Your task to perform on an android device: turn on notifications settings in the gmail app Image 0: 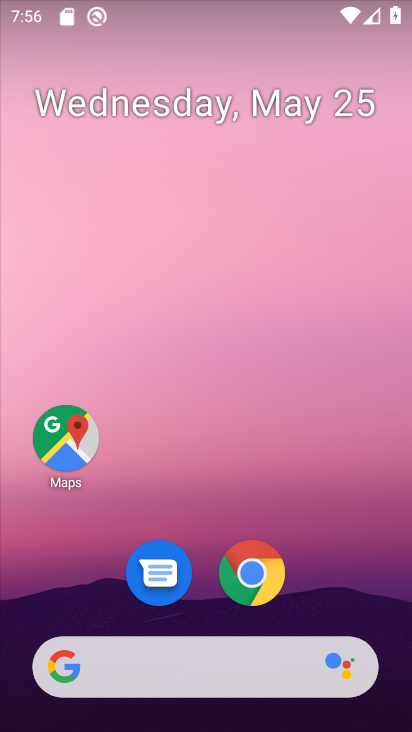
Step 0: drag from (398, 695) to (334, 194)
Your task to perform on an android device: turn on notifications settings in the gmail app Image 1: 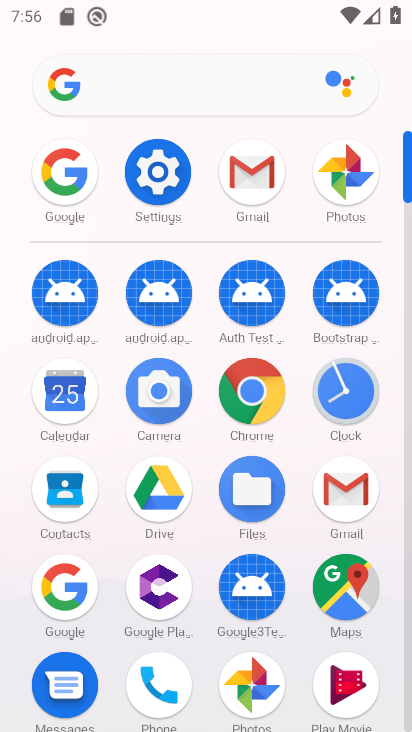
Step 1: click (261, 186)
Your task to perform on an android device: turn on notifications settings in the gmail app Image 2: 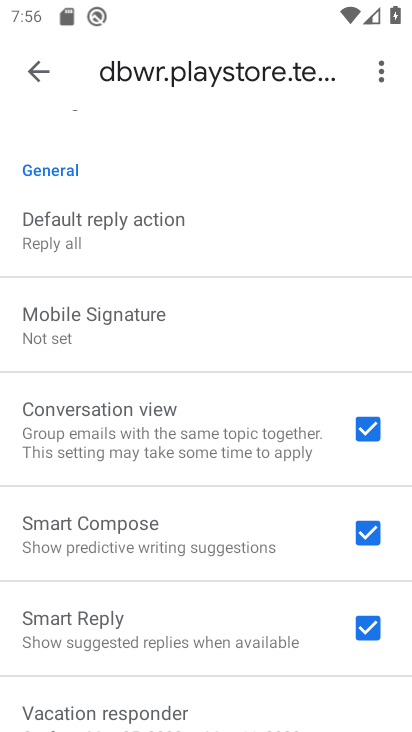
Step 2: drag from (182, 664) to (199, 395)
Your task to perform on an android device: turn on notifications settings in the gmail app Image 3: 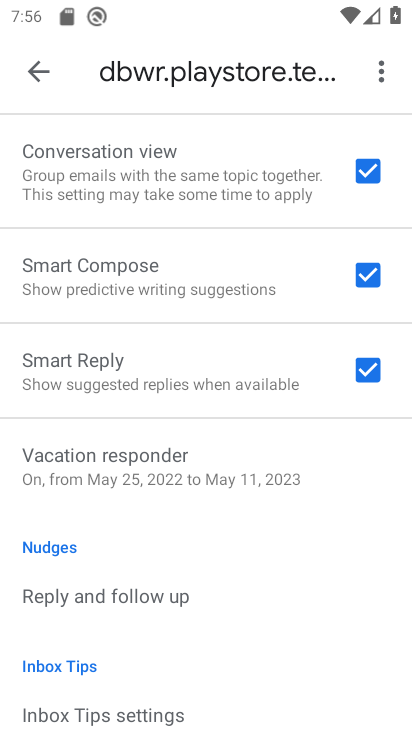
Step 3: drag from (228, 680) to (223, 394)
Your task to perform on an android device: turn on notifications settings in the gmail app Image 4: 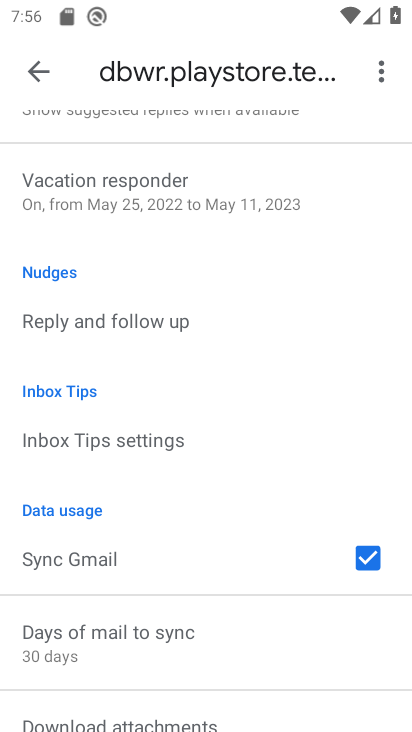
Step 4: drag from (209, 672) to (215, 438)
Your task to perform on an android device: turn on notifications settings in the gmail app Image 5: 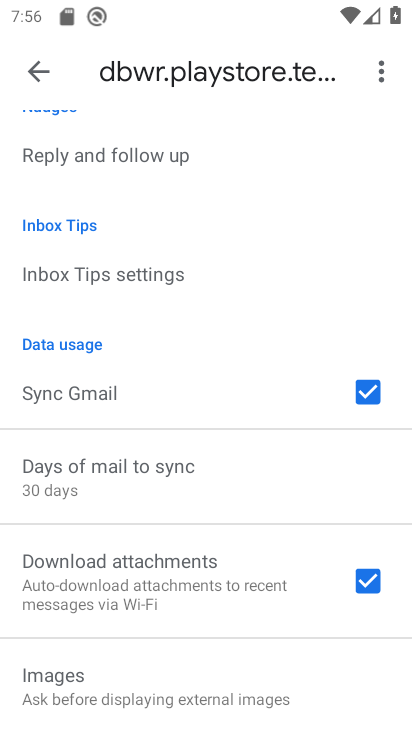
Step 5: drag from (180, 707) to (191, 414)
Your task to perform on an android device: turn on notifications settings in the gmail app Image 6: 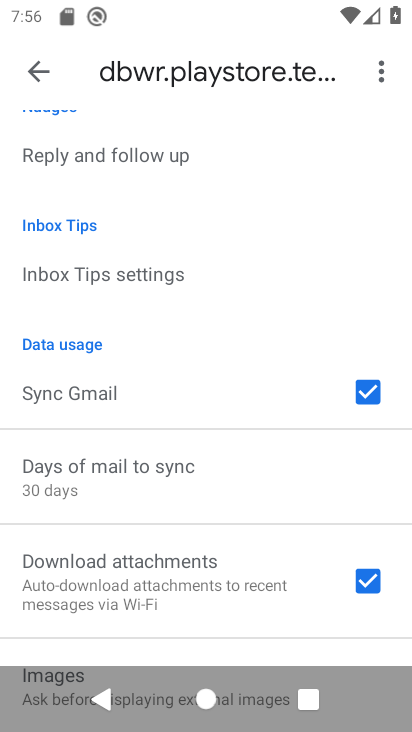
Step 6: drag from (213, 241) to (189, 669)
Your task to perform on an android device: turn on notifications settings in the gmail app Image 7: 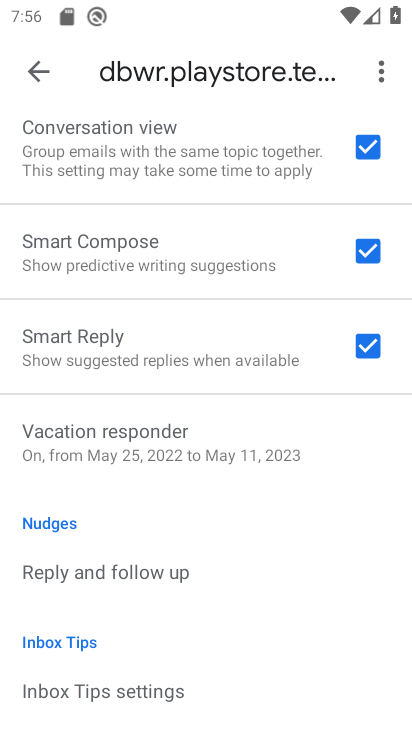
Step 7: drag from (218, 200) to (210, 582)
Your task to perform on an android device: turn on notifications settings in the gmail app Image 8: 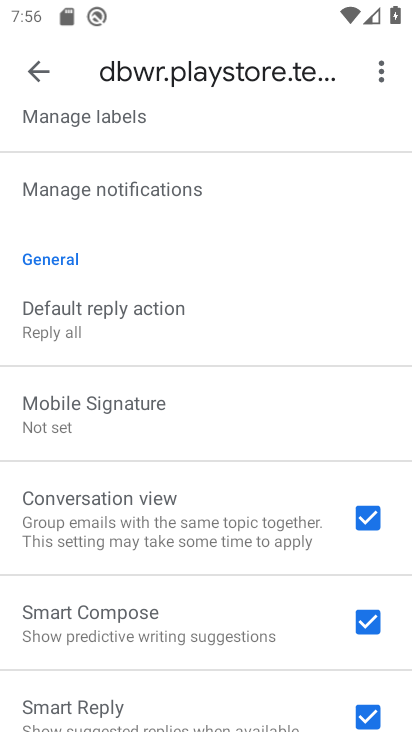
Step 8: drag from (207, 209) to (199, 602)
Your task to perform on an android device: turn on notifications settings in the gmail app Image 9: 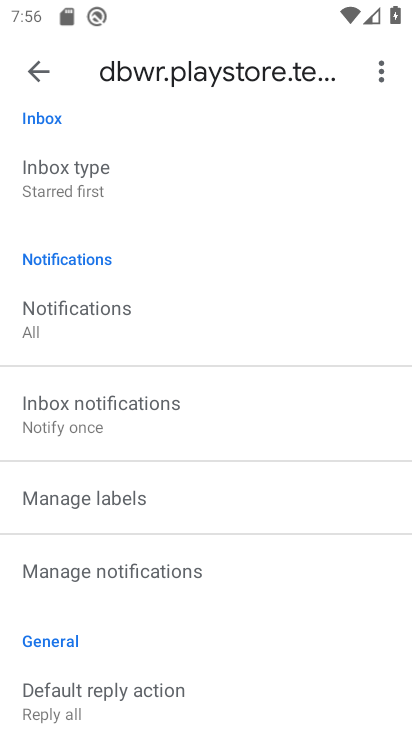
Step 9: drag from (199, 258) to (190, 505)
Your task to perform on an android device: turn on notifications settings in the gmail app Image 10: 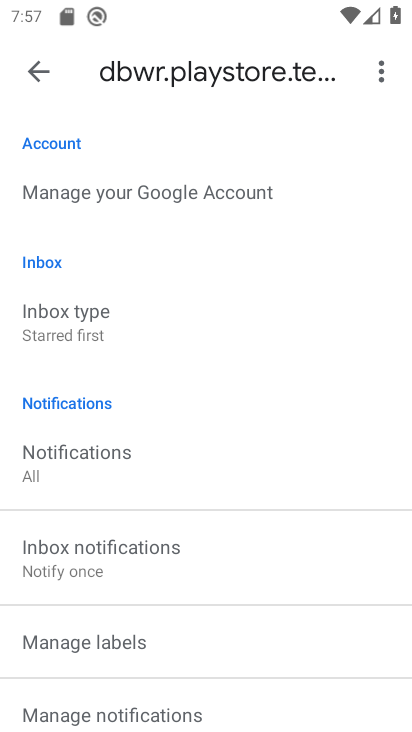
Step 10: click (35, 75)
Your task to perform on an android device: turn on notifications settings in the gmail app Image 11: 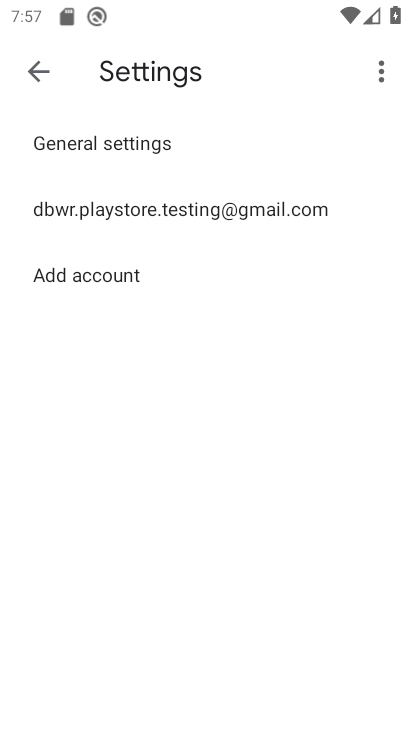
Step 11: click (93, 143)
Your task to perform on an android device: turn on notifications settings in the gmail app Image 12: 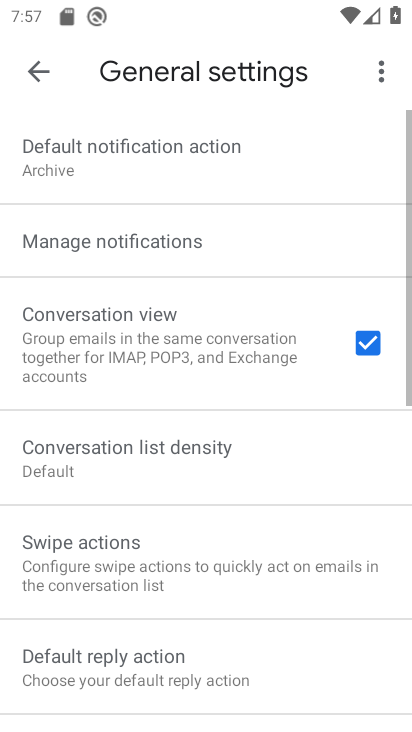
Step 12: click (95, 244)
Your task to perform on an android device: turn on notifications settings in the gmail app Image 13: 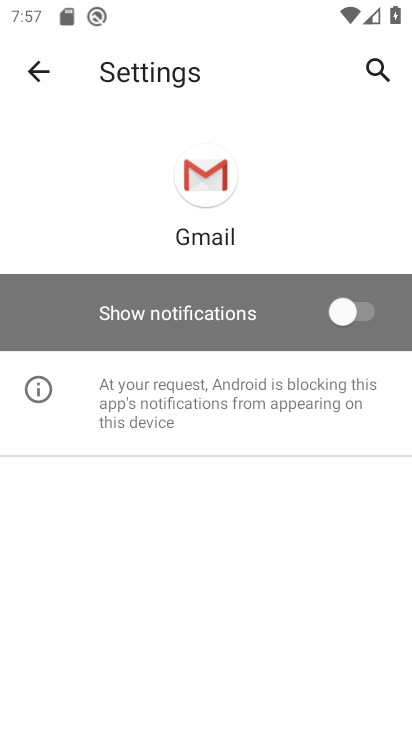
Step 13: click (363, 321)
Your task to perform on an android device: turn on notifications settings in the gmail app Image 14: 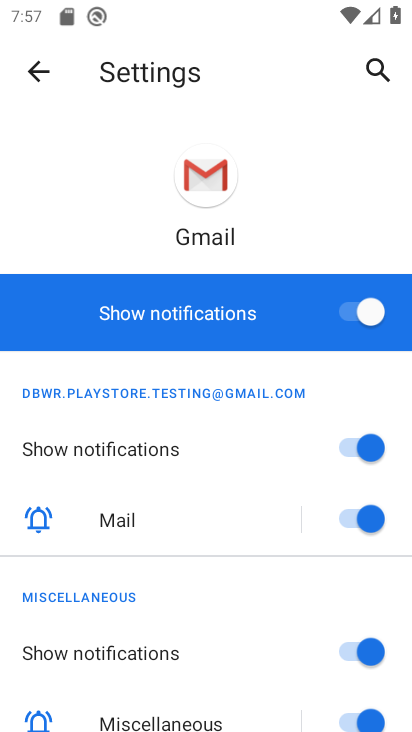
Step 14: task complete